Your task to perform on an android device: turn off smart reply in the gmail app Image 0: 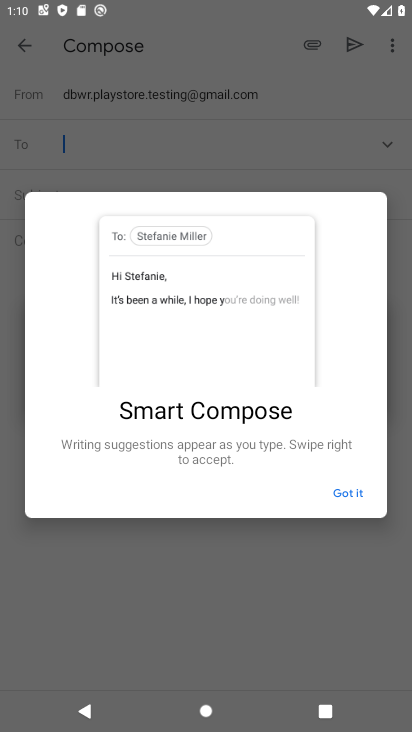
Step 0: press home button
Your task to perform on an android device: turn off smart reply in the gmail app Image 1: 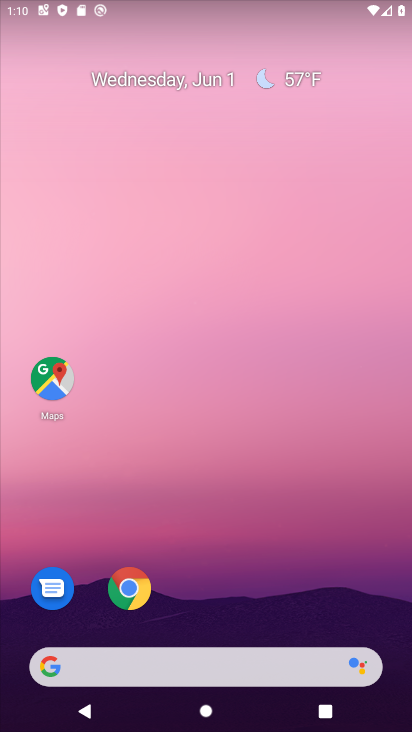
Step 1: drag from (296, 506) to (212, 20)
Your task to perform on an android device: turn off smart reply in the gmail app Image 2: 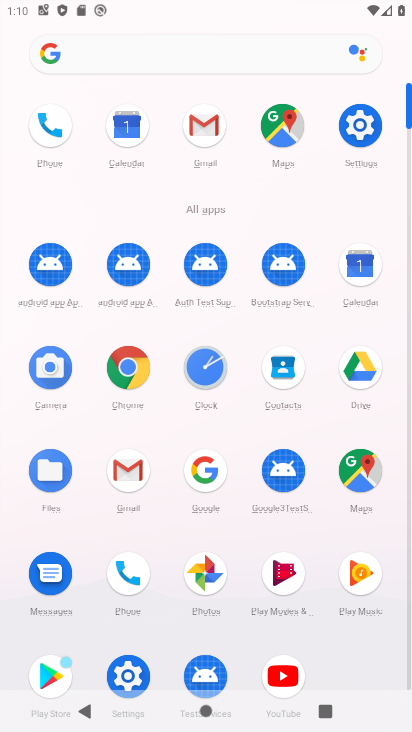
Step 2: click (209, 124)
Your task to perform on an android device: turn off smart reply in the gmail app Image 3: 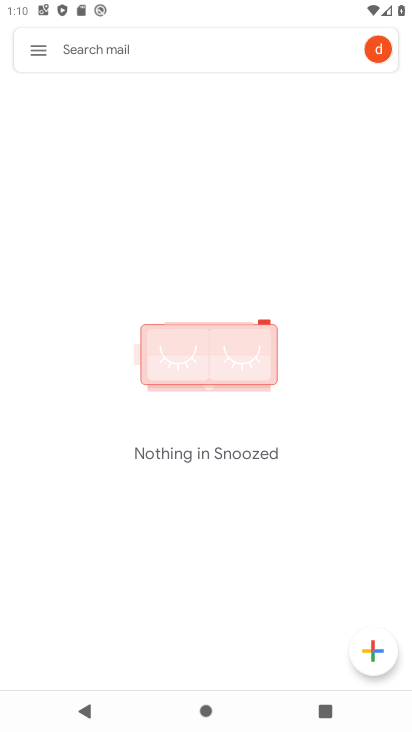
Step 3: press home button
Your task to perform on an android device: turn off smart reply in the gmail app Image 4: 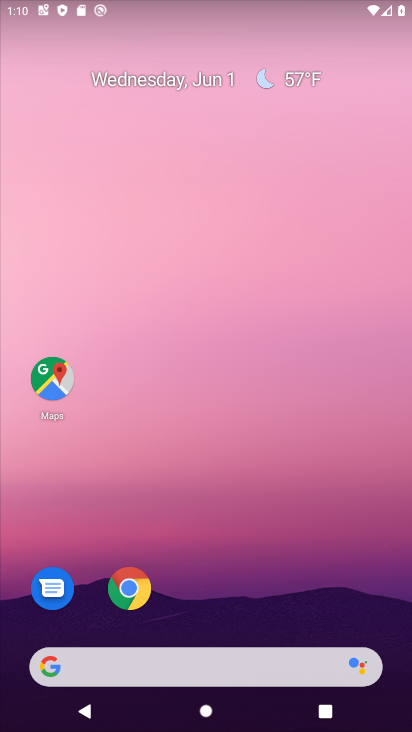
Step 4: drag from (202, 278) to (117, 50)
Your task to perform on an android device: turn off smart reply in the gmail app Image 5: 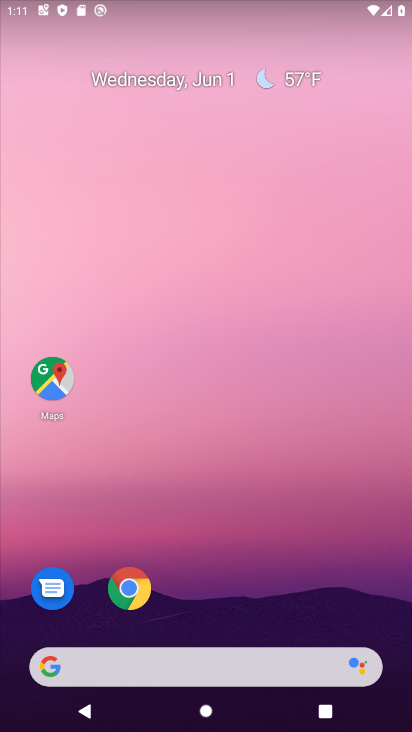
Step 5: drag from (242, 553) to (238, 150)
Your task to perform on an android device: turn off smart reply in the gmail app Image 6: 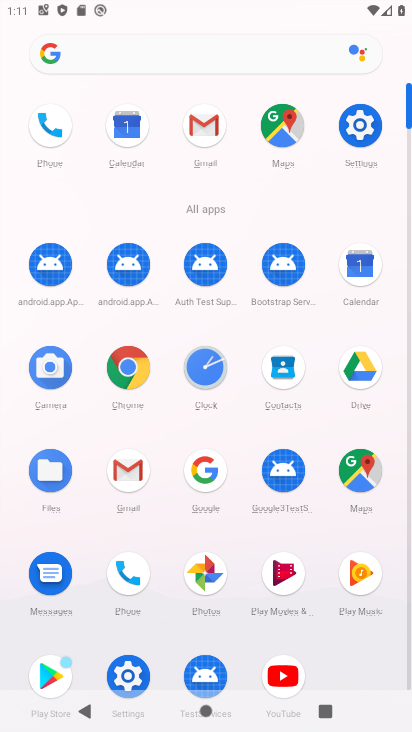
Step 6: click (133, 474)
Your task to perform on an android device: turn off smart reply in the gmail app Image 7: 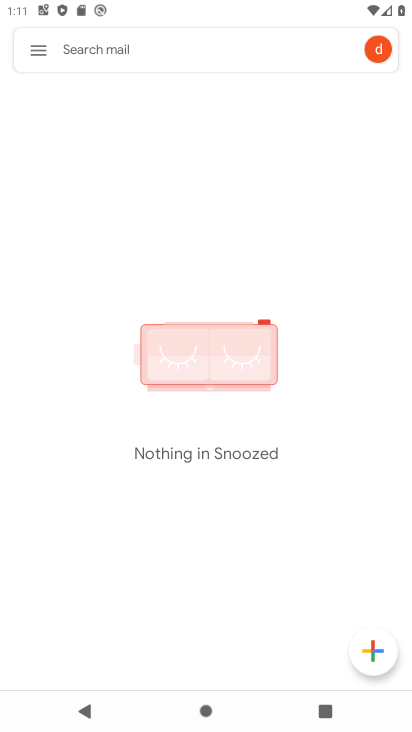
Step 7: click (25, 38)
Your task to perform on an android device: turn off smart reply in the gmail app Image 8: 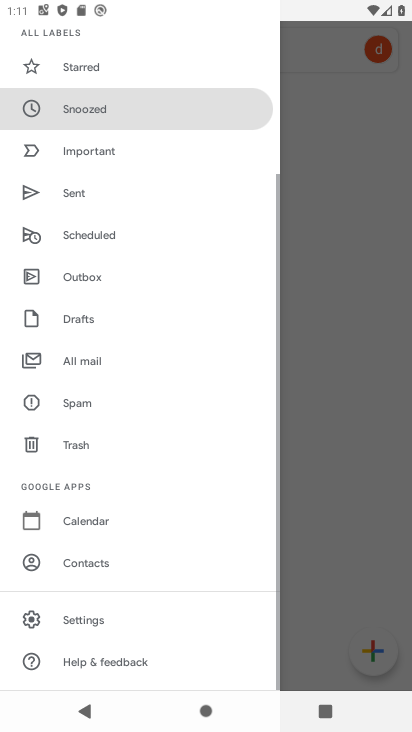
Step 8: drag from (148, 484) to (125, 139)
Your task to perform on an android device: turn off smart reply in the gmail app Image 9: 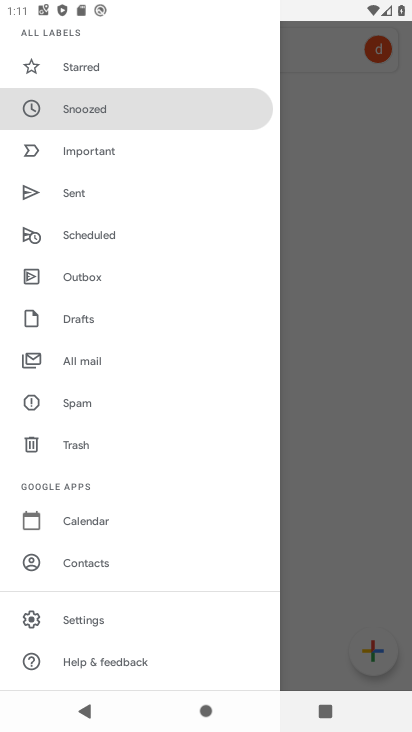
Step 9: click (80, 608)
Your task to perform on an android device: turn off smart reply in the gmail app Image 10: 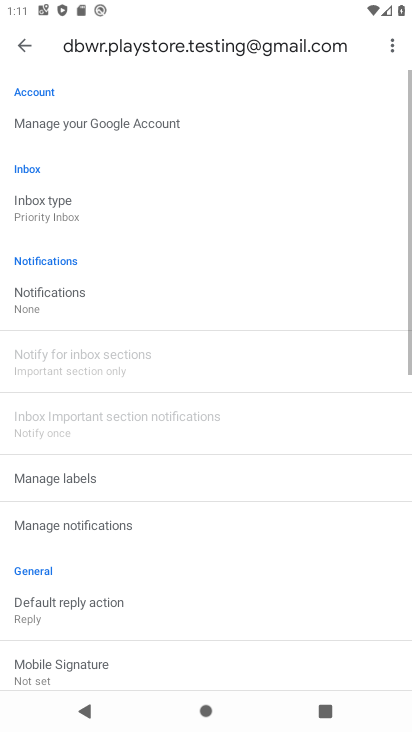
Step 10: drag from (198, 438) to (221, 200)
Your task to perform on an android device: turn off smart reply in the gmail app Image 11: 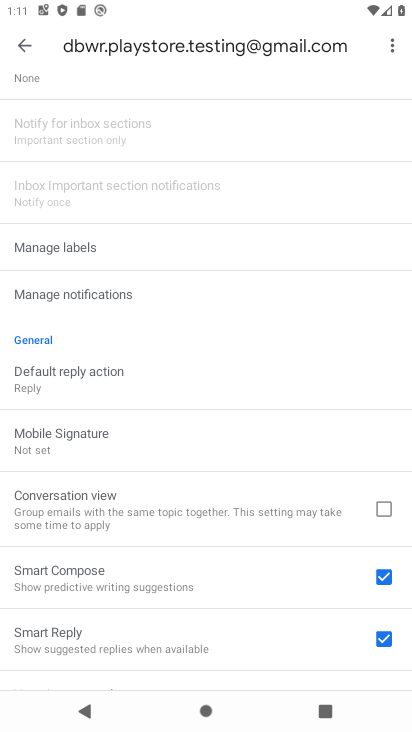
Step 11: click (383, 642)
Your task to perform on an android device: turn off smart reply in the gmail app Image 12: 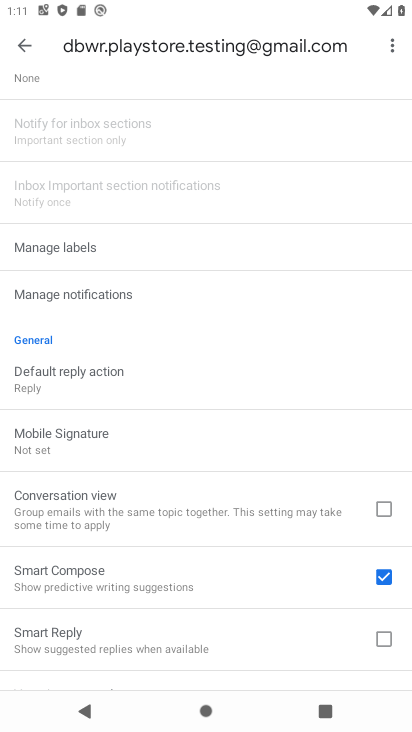
Step 12: task complete